Your task to perform on an android device: What's on my calendar tomorrow? Image 0: 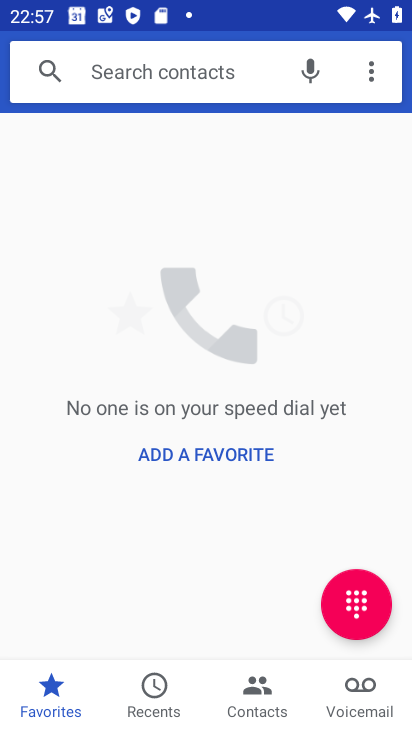
Step 0: press home button
Your task to perform on an android device: What's on my calendar tomorrow? Image 1: 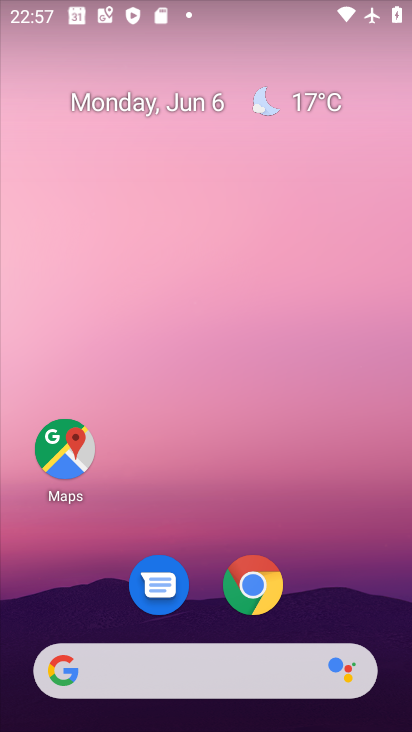
Step 1: drag from (227, 468) to (241, 2)
Your task to perform on an android device: What's on my calendar tomorrow? Image 2: 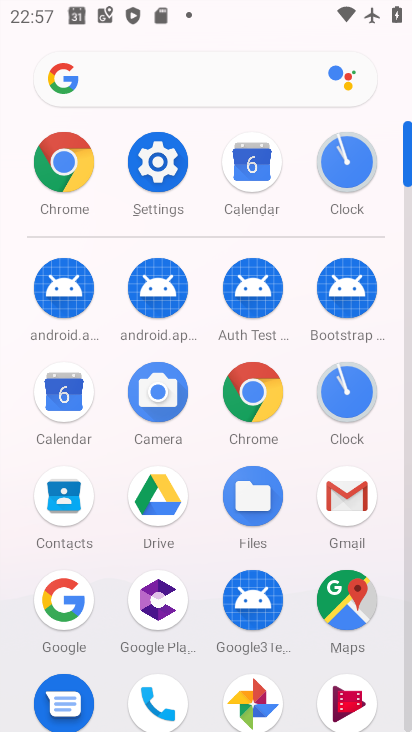
Step 2: click (244, 158)
Your task to perform on an android device: What's on my calendar tomorrow? Image 3: 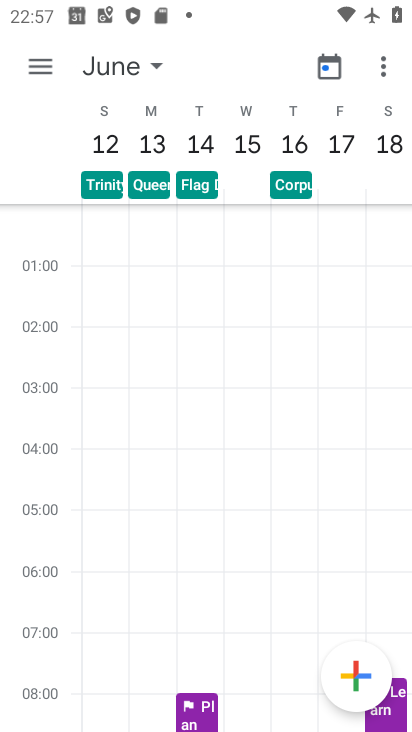
Step 3: drag from (106, 396) to (397, 421)
Your task to perform on an android device: What's on my calendar tomorrow? Image 4: 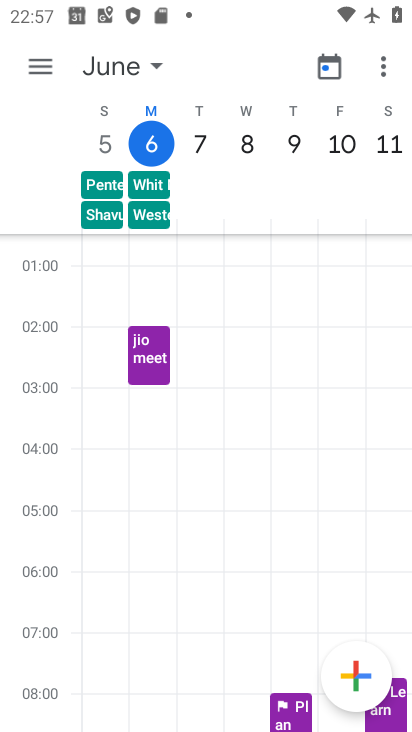
Step 4: click (139, 137)
Your task to perform on an android device: What's on my calendar tomorrow? Image 5: 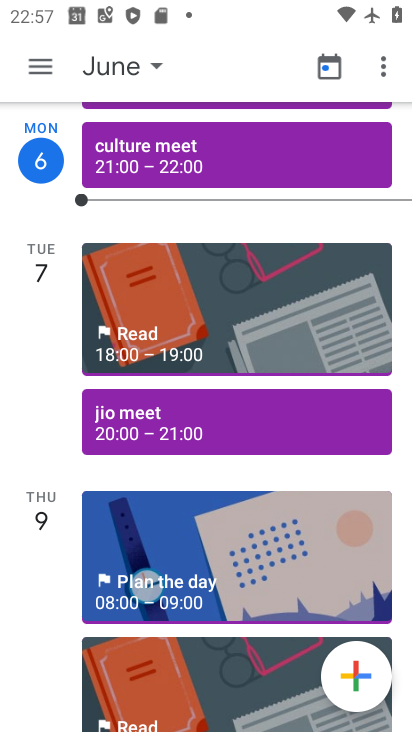
Step 5: click (137, 316)
Your task to perform on an android device: What's on my calendar tomorrow? Image 6: 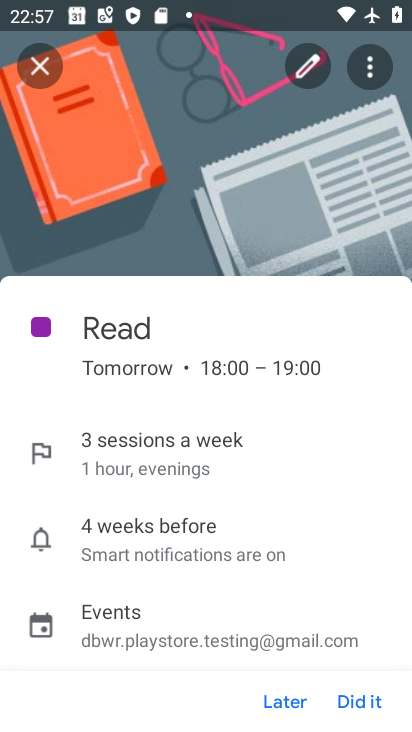
Step 6: task complete